Your task to perform on an android device: Open the stopwatch Image 0: 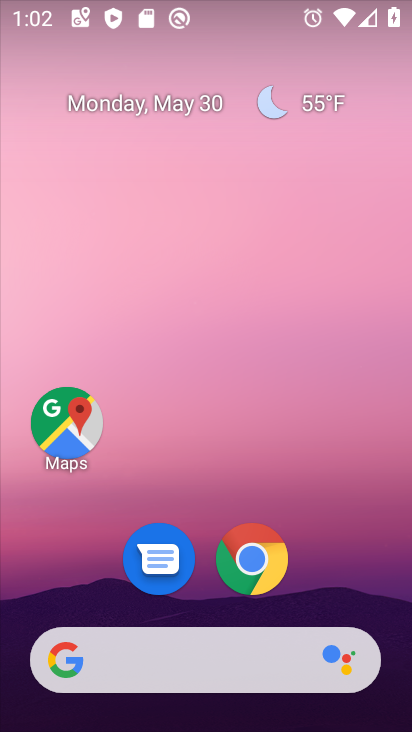
Step 0: drag from (218, 467) to (276, 71)
Your task to perform on an android device: Open the stopwatch Image 1: 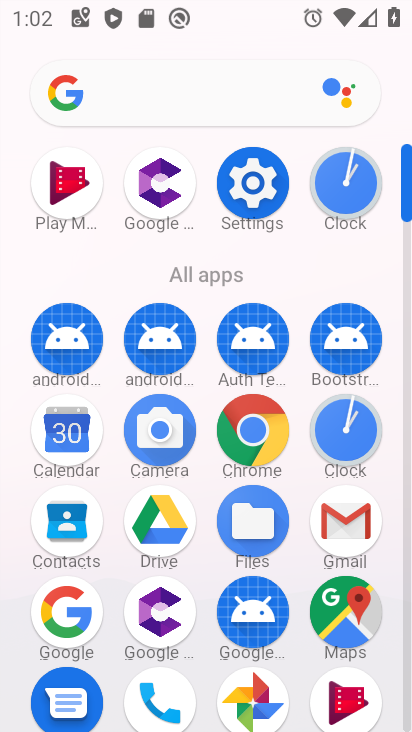
Step 1: click (342, 438)
Your task to perform on an android device: Open the stopwatch Image 2: 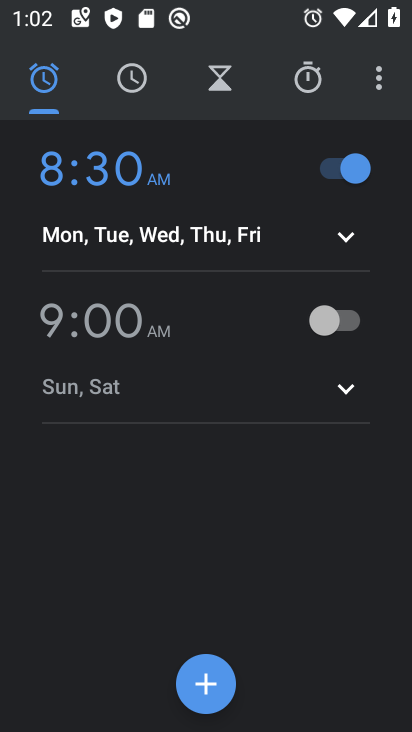
Step 2: click (297, 76)
Your task to perform on an android device: Open the stopwatch Image 3: 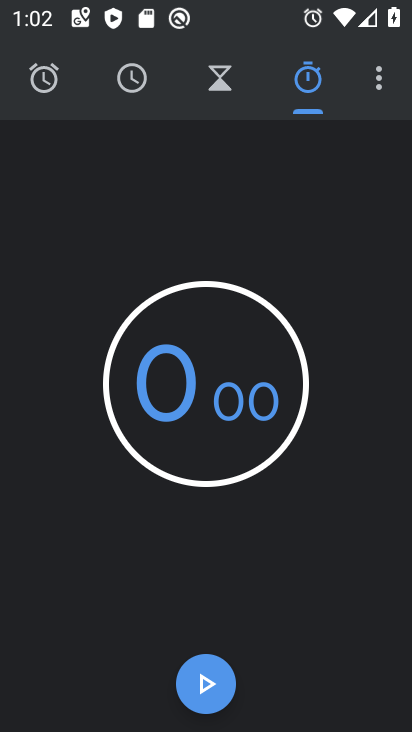
Step 3: click (215, 413)
Your task to perform on an android device: Open the stopwatch Image 4: 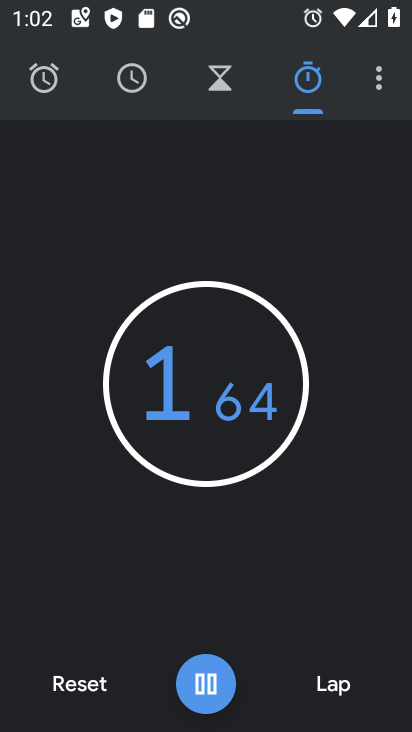
Step 4: click (167, 373)
Your task to perform on an android device: Open the stopwatch Image 5: 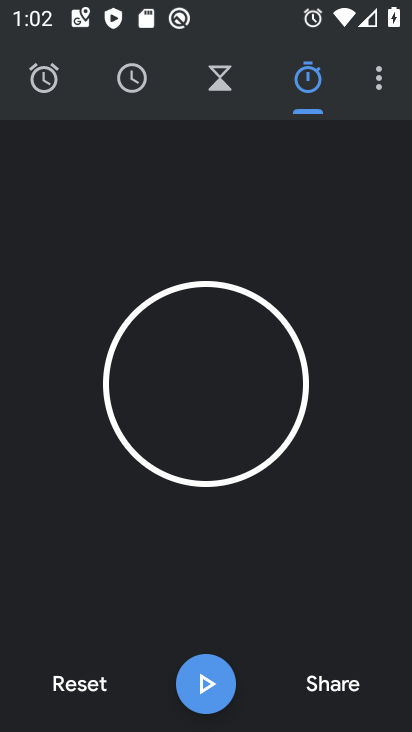
Step 5: task complete